Your task to perform on an android device: Open Reddit.com Image 0: 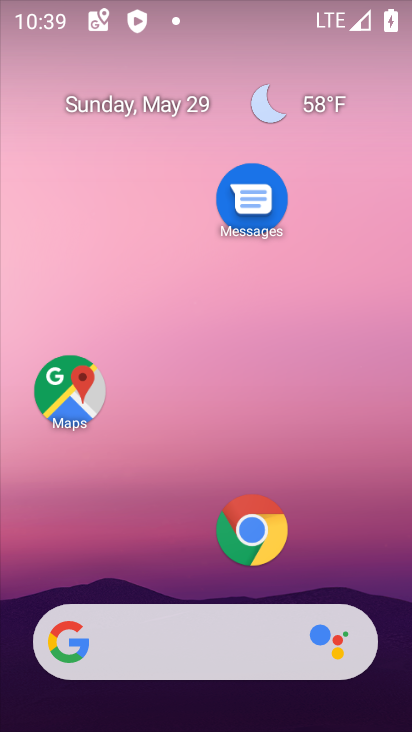
Step 0: click (297, 534)
Your task to perform on an android device: Open Reddit.com Image 1: 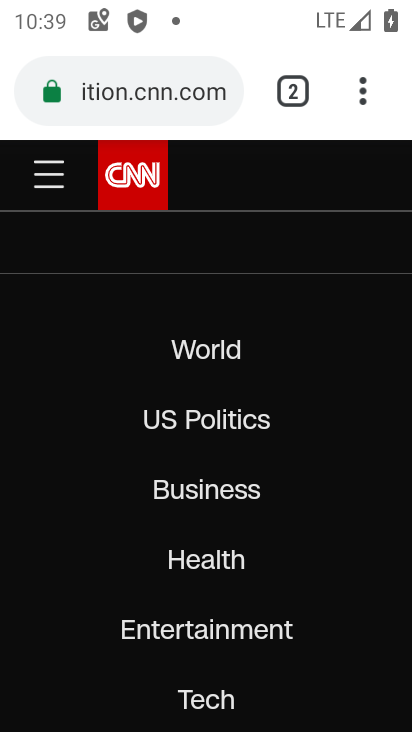
Step 1: click (173, 100)
Your task to perform on an android device: Open Reddit.com Image 2: 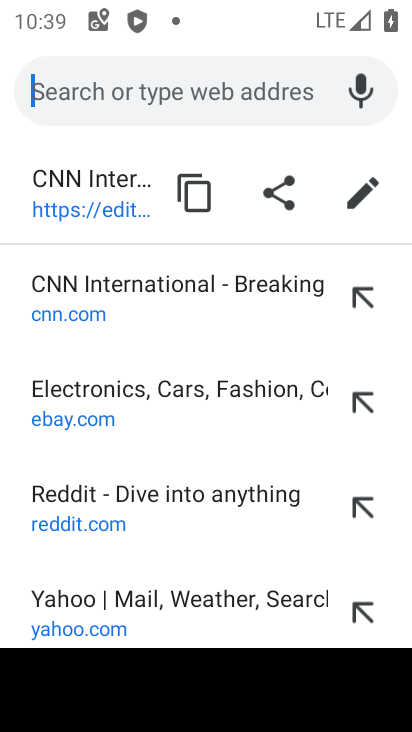
Step 2: type "Reddit.com"
Your task to perform on an android device: Open Reddit.com Image 3: 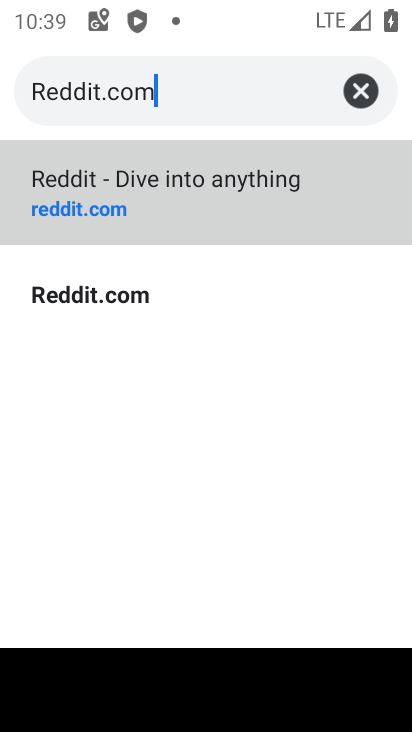
Step 3: click (128, 224)
Your task to perform on an android device: Open Reddit.com Image 4: 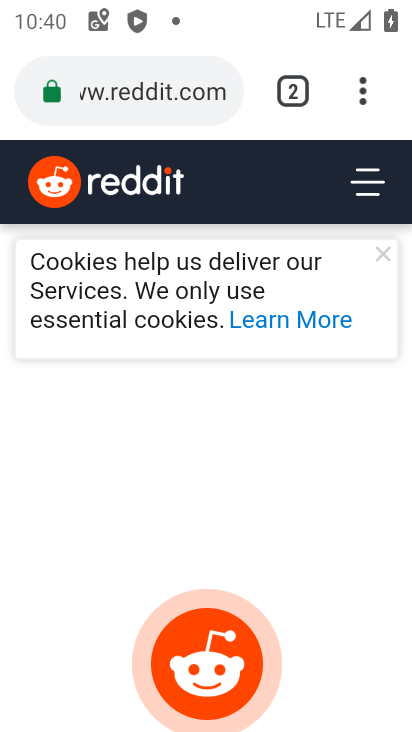
Step 4: task complete